Your task to perform on an android device: Open ESPN.com Image 0: 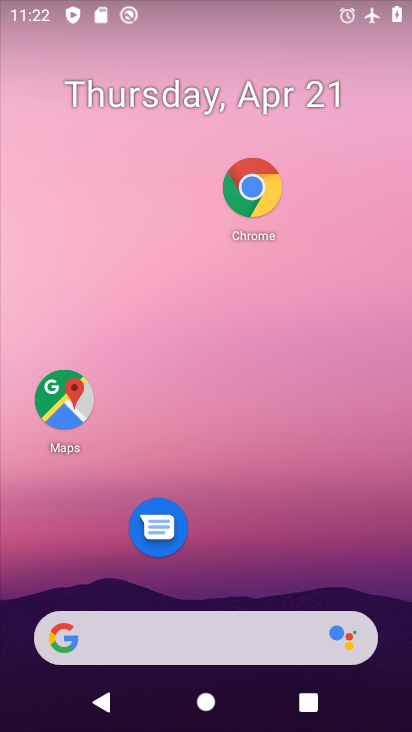
Step 0: drag from (288, 593) to (288, 131)
Your task to perform on an android device: Open ESPN.com Image 1: 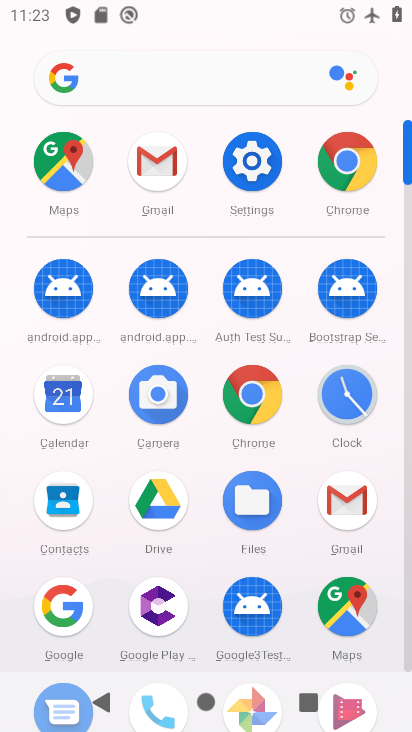
Step 1: click (356, 192)
Your task to perform on an android device: Open ESPN.com Image 2: 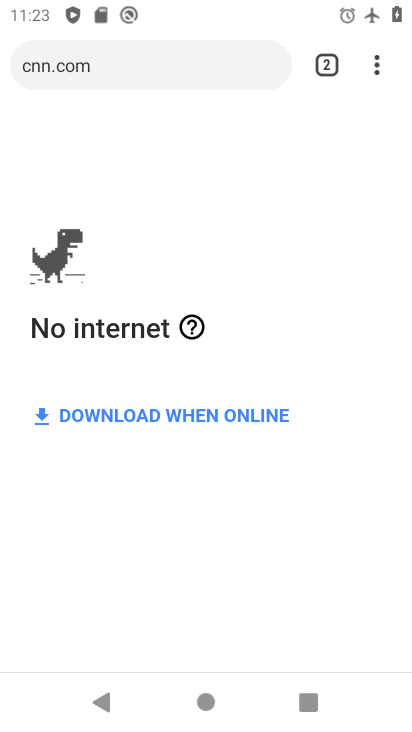
Step 2: click (197, 82)
Your task to perform on an android device: Open ESPN.com Image 3: 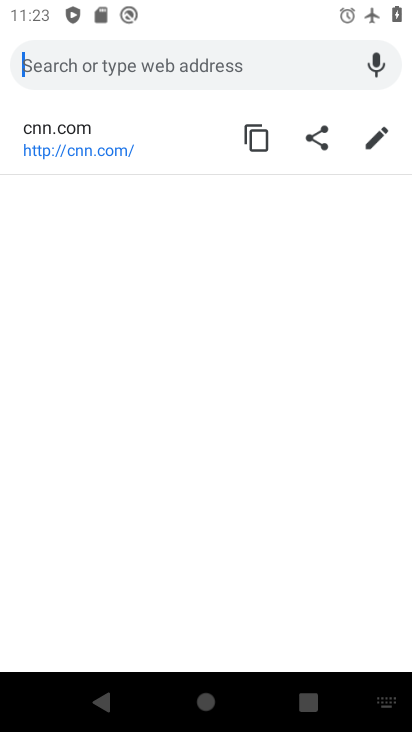
Step 3: type "espn.com"
Your task to perform on an android device: Open ESPN.com Image 4: 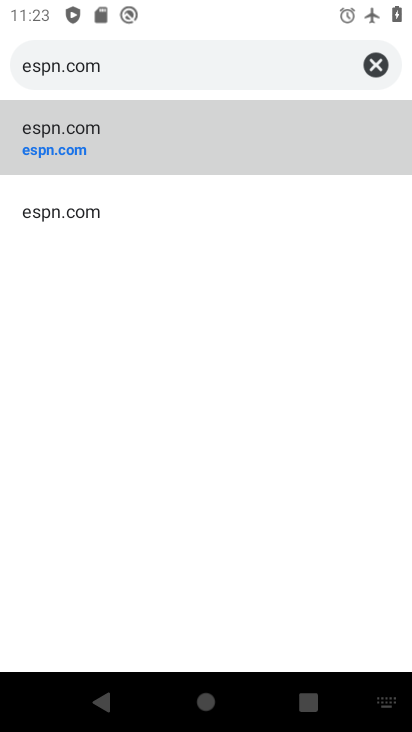
Step 4: click (263, 157)
Your task to perform on an android device: Open ESPN.com Image 5: 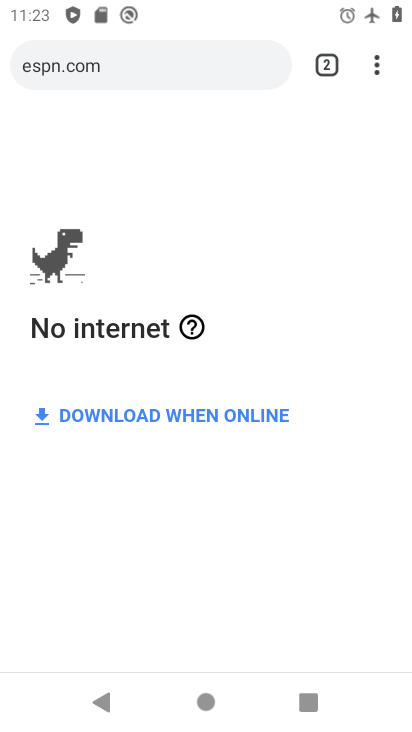
Step 5: task complete